Your task to perform on an android device: Check the news Image 0: 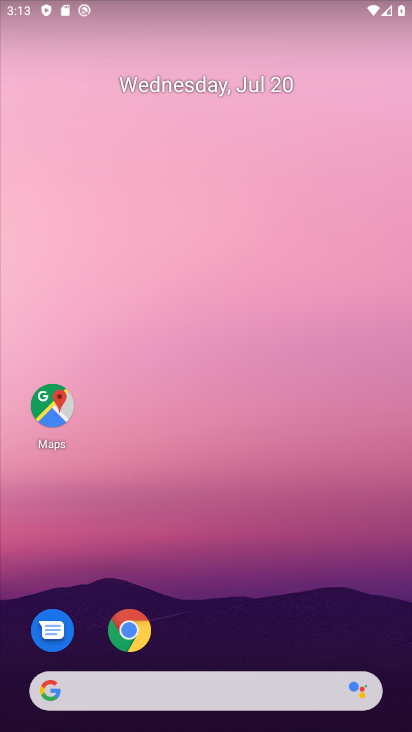
Step 0: press home button
Your task to perform on an android device: Check the news Image 1: 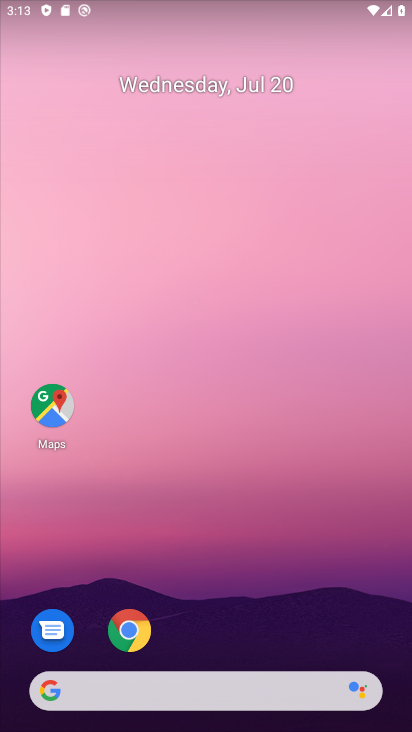
Step 1: click (40, 689)
Your task to perform on an android device: Check the news Image 2: 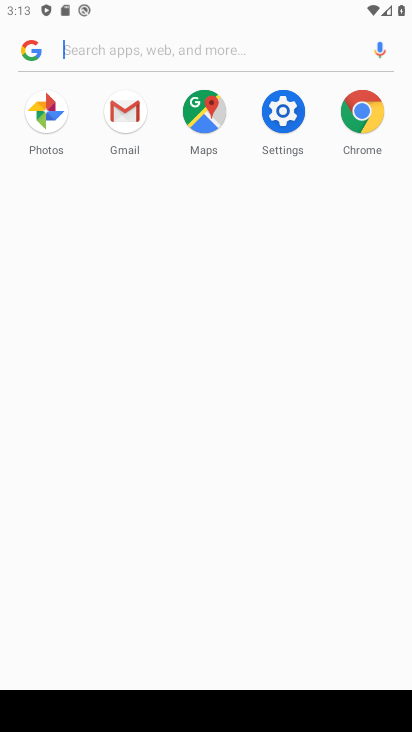
Step 2: type " news"
Your task to perform on an android device: Check the news Image 3: 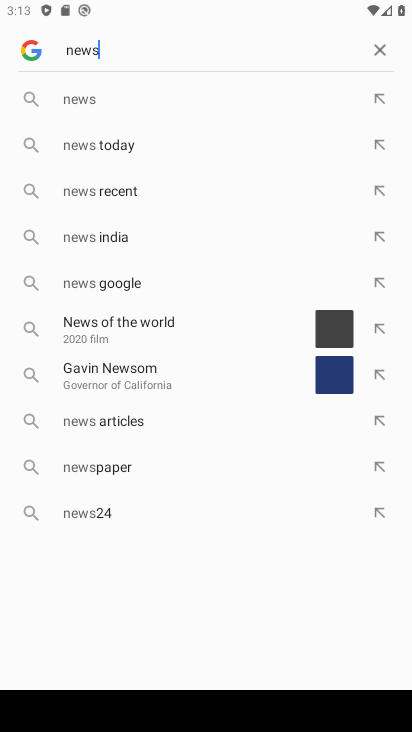
Step 3: press enter
Your task to perform on an android device: Check the news Image 4: 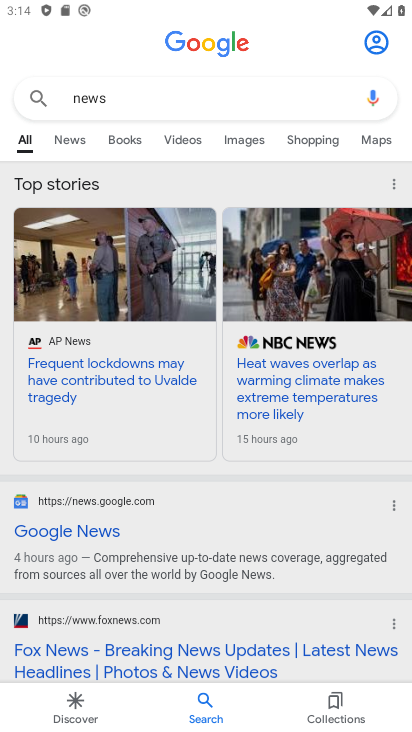
Step 4: task complete